Your task to perform on an android device: Open calendar and show me the fourth week of next month Image 0: 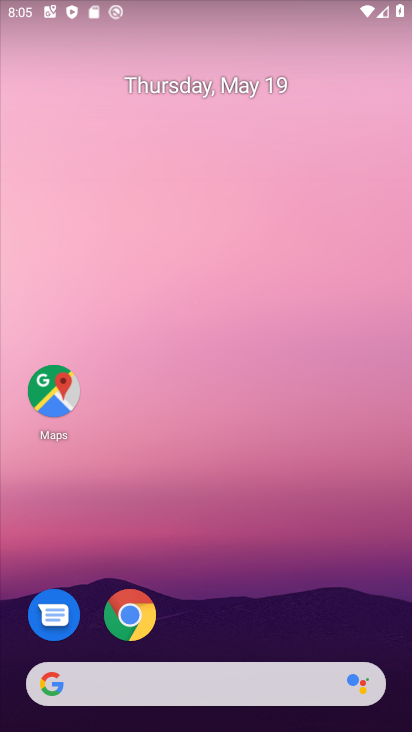
Step 0: drag from (238, 585) to (258, 108)
Your task to perform on an android device: Open calendar and show me the fourth week of next month Image 1: 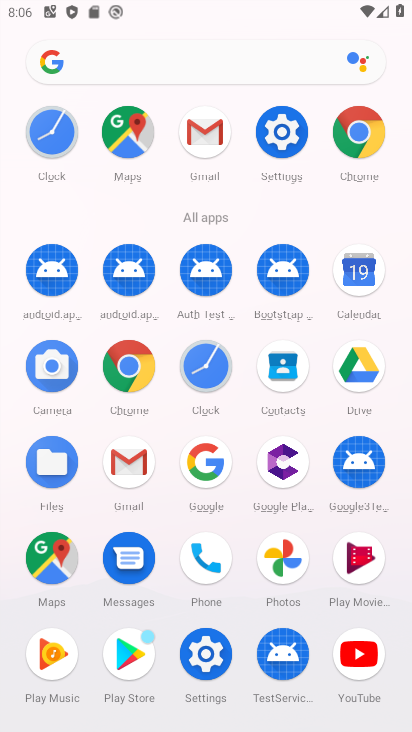
Step 1: click (364, 274)
Your task to perform on an android device: Open calendar and show me the fourth week of next month Image 2: 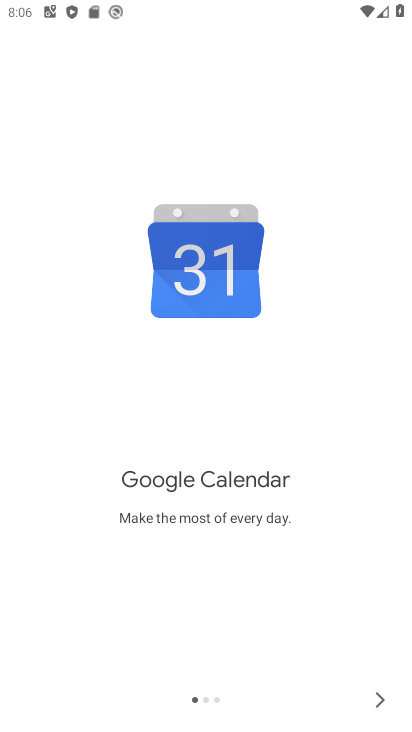
Step 2: click (384, 698)
Your task to perform on an android device: Open calendar and show me the fourth week of next month Image 3: 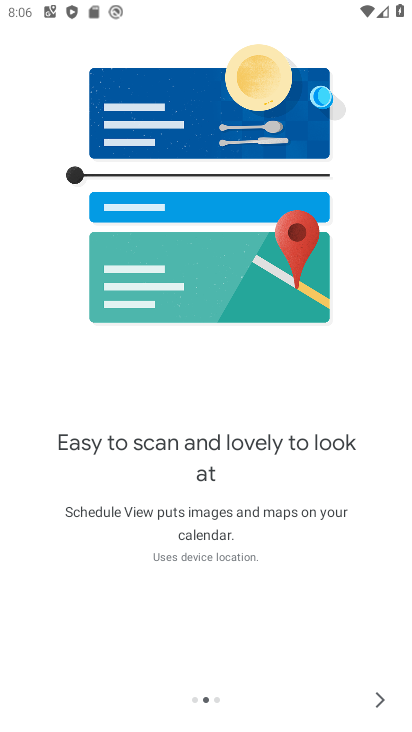
Step 3: click (384, 698)
Your task to perform on an android device: Open calendar and show me the fourth week of next month Image 4: 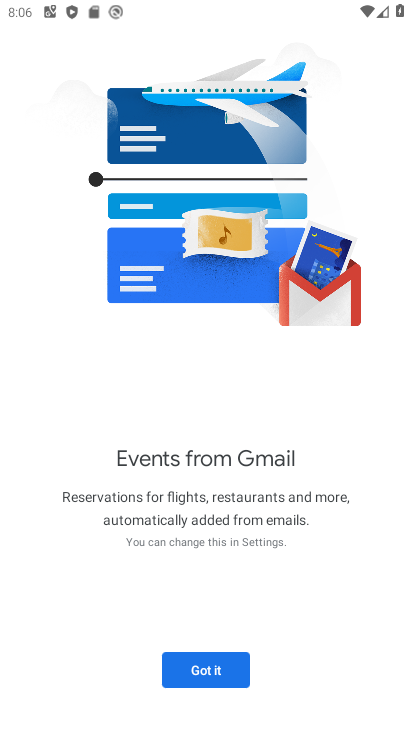
Step 4: click (214, 662)
Your task to perform on an android device: Open calendar and show me the fourth week of next month Image 5: 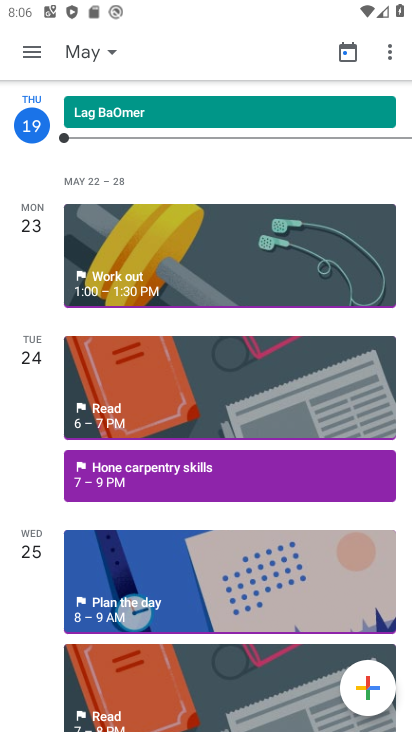
Step 5: click (99, 54)
Your task to perform on an android device: Open calendar and show me the fourth week of next month Image 6: 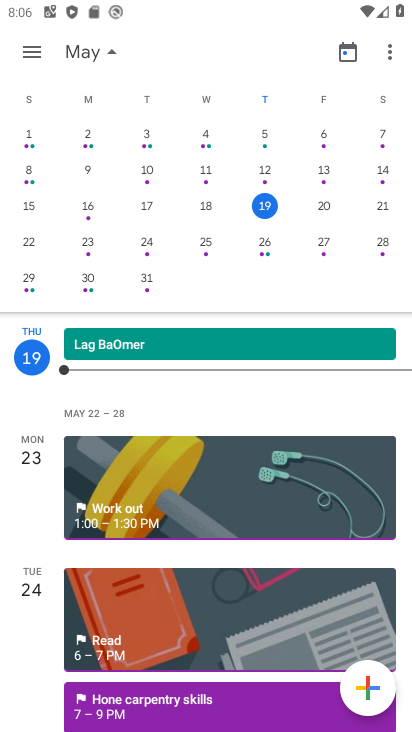
Step 6: drag from (375, 277) to (31, 232)
Your task to perform on an android device: Open calendar and show me the fourth week of next month Image 7: 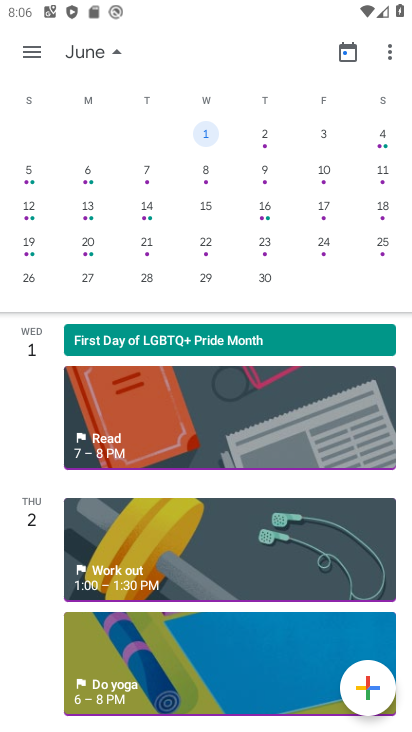
Step 7: click (210, 237)
Your task to perform on an android device: Open calendar and show me the fourth week of next month Image 8: 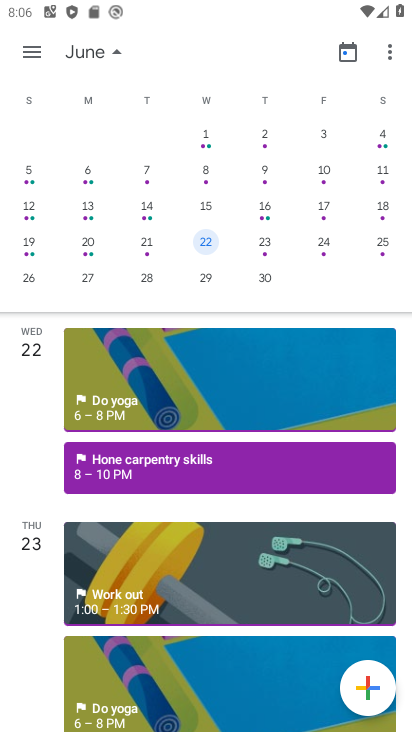
Step 8: task complete